Your task to perform on an android device: check out phone information Image 0: 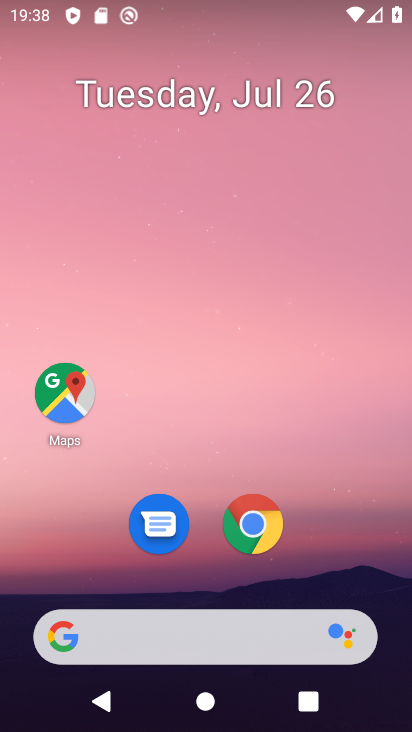
Step 0: drag from (153, 638) to (96, 0)
Your task to perform on an android device: check out phone information Image 1: 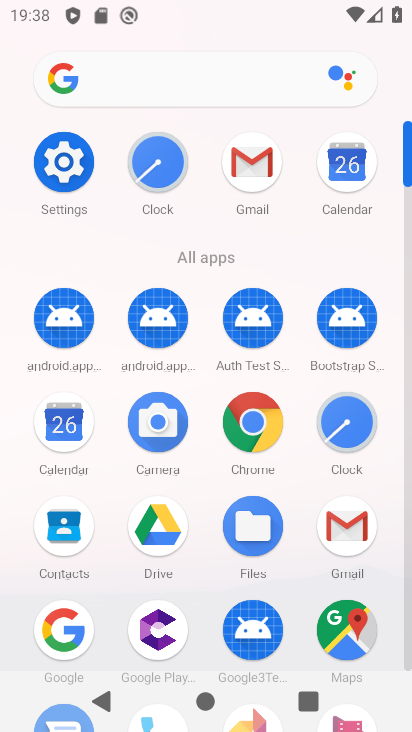
Step 1: click (61, 165)
Your task to perform on an android device: check out phone information Image 2: 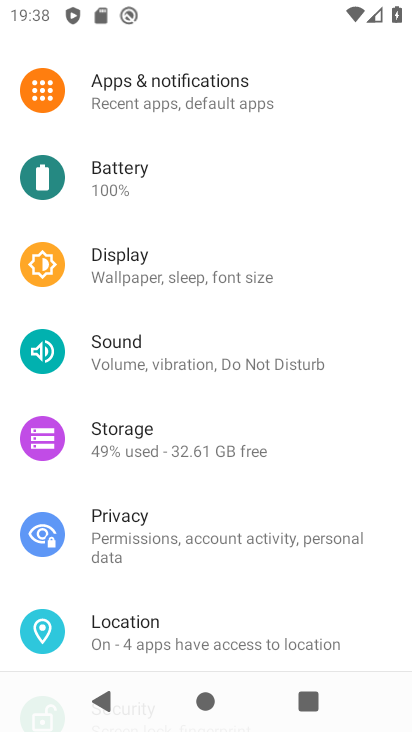
Step 2: drag from (239, 642) to (371, 61)
Your task to perform on an android device: check out phone information Image 3: 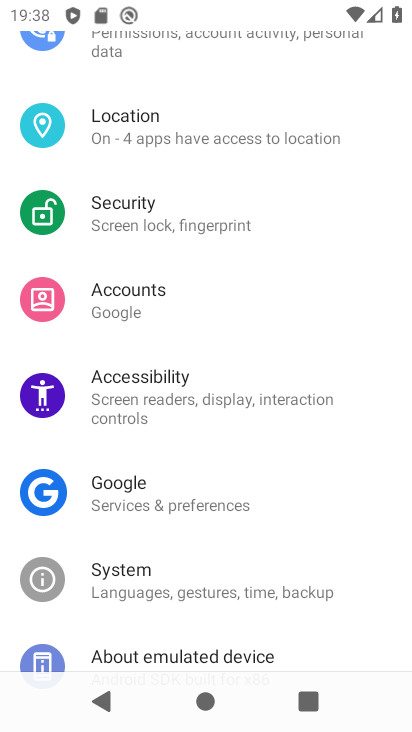
Step 3: drag from (228, 622) to (386, 57)
Your task to perform on an android device: check out phone information Image 4: 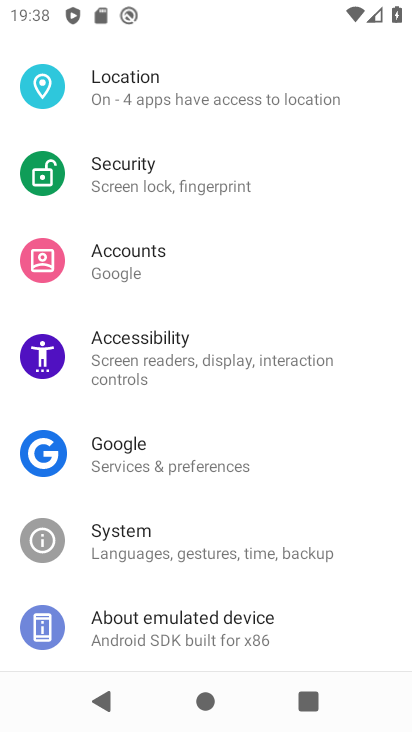
Step 4: click (209, 630)
Your task to perform on an android device: check out phone information Image 5: 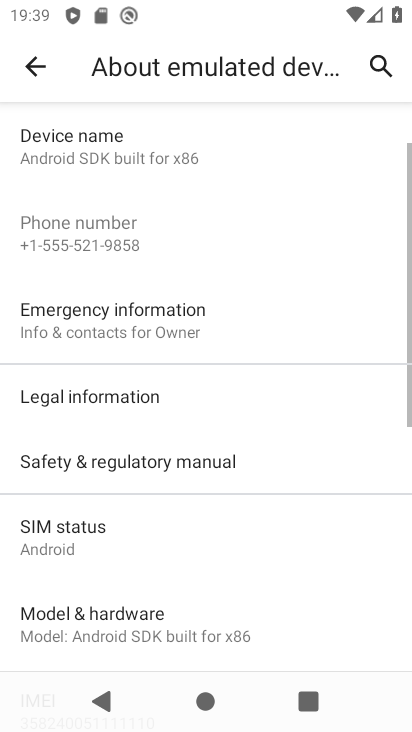
Step 5: task complete